Your task to perform on an android device: Go to accessibility settings Image 0: 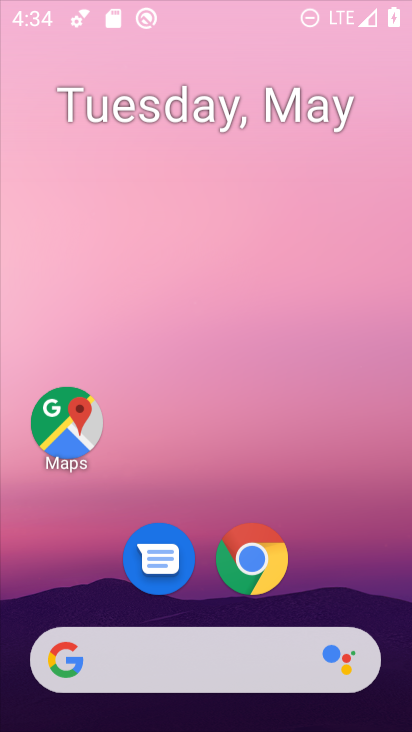
Step 0: click (234, 114)
Your task to perform on an android device: Go to accessibility settings Image 1: 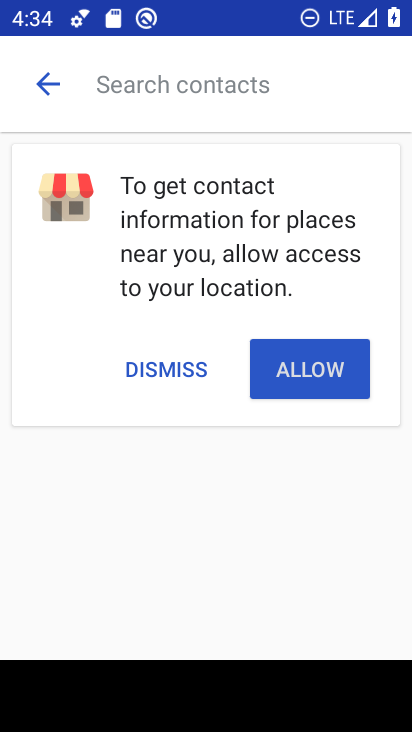
Step 1: press home button
Your task to perform on an android device: Go to accessibility settings Image 2: 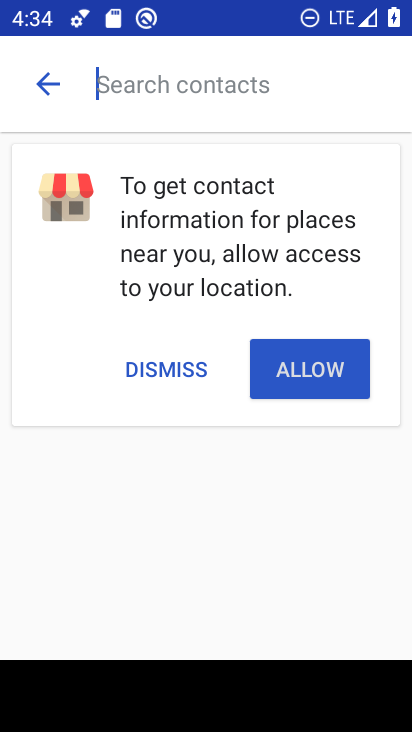
Step 2: press home button
Your task to perform on an android device: Go to accessibility settings Image 3: 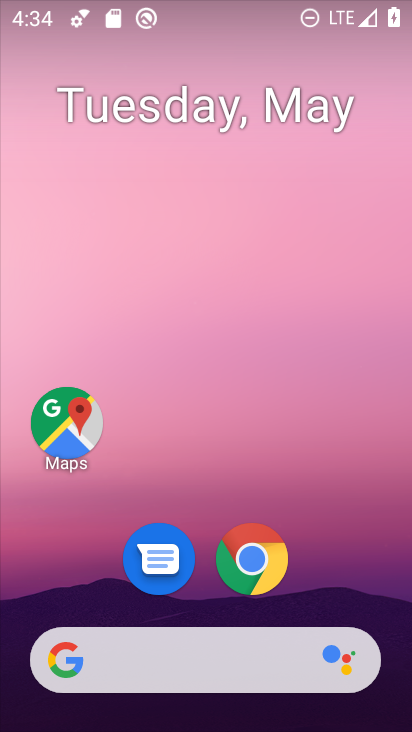
Step 3: drag from (221, 721) to (229, 87)
Your task to perform on an android device: Go to accessibility settings Image 4: 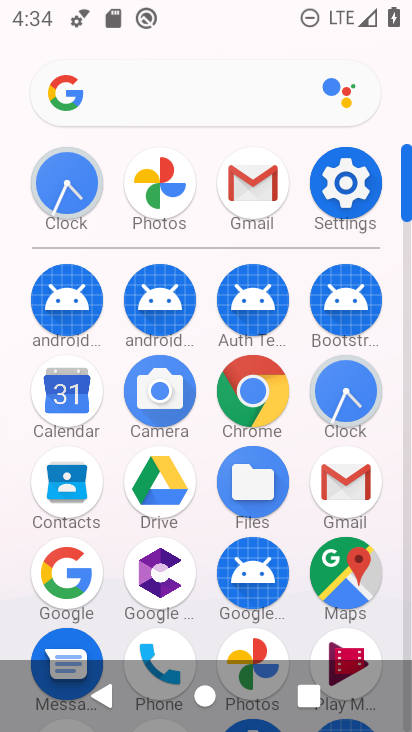
Step 4: click (337, 182)
Your task to perform on an android device: Go to accessibility settings Image 5: 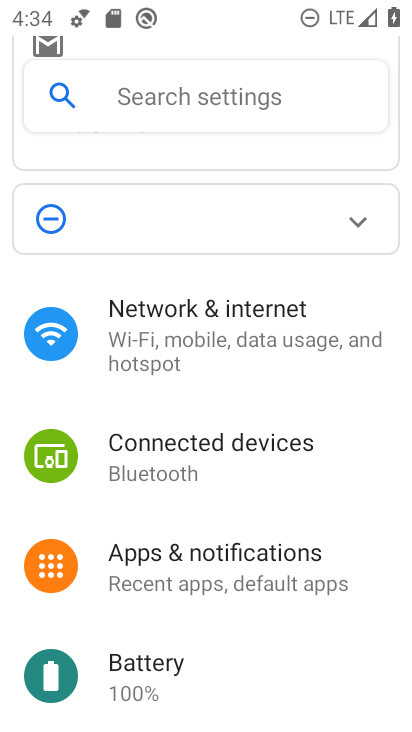
Step 5: drag from (216, 686) to (223, 320)
Your task to perform on an android device: Go to accessibility settings Image 6: 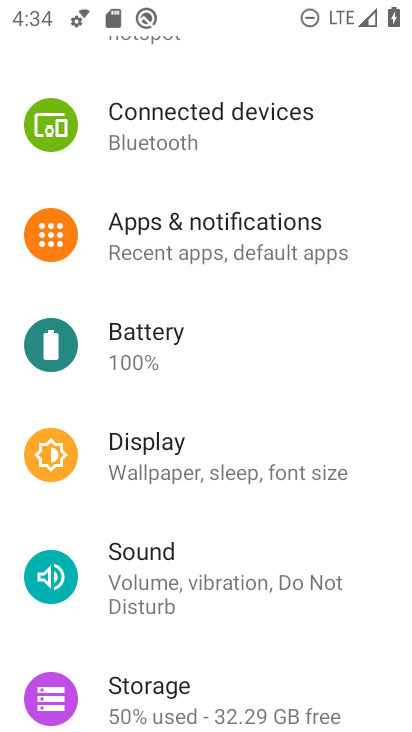
Step 6: drag from (265, 655) to (271, 239)
Your task to perform on an android device: Go to accessibility settings Image 7: 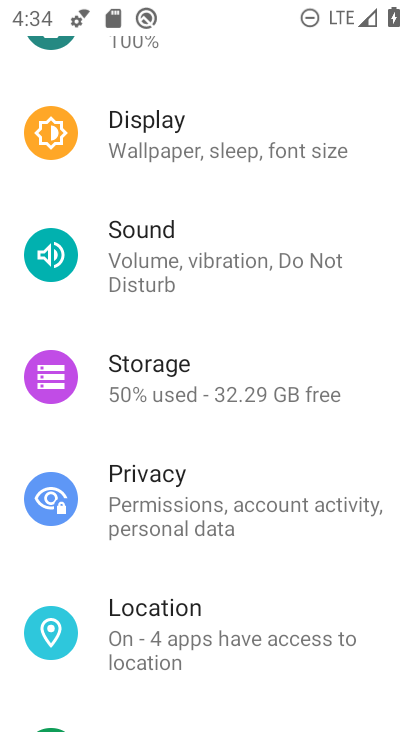
Step 7: drag from (234, 681) to (247, 236)
Your task to perform on an android device: Go to accessibility settings Image 8: 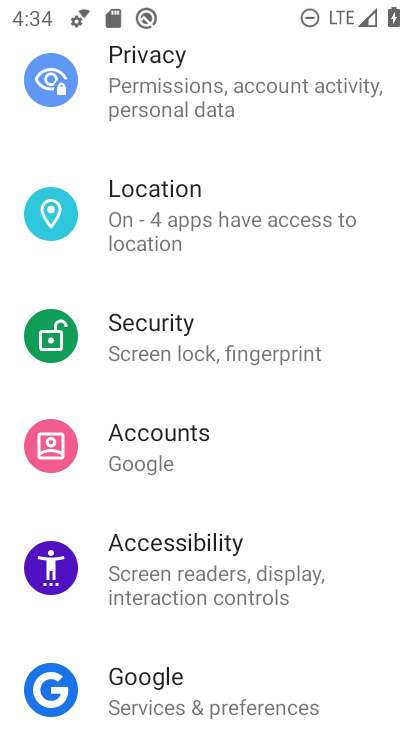
Step 8: click (206, 574)
Your task to perform on an android device: Go to accessibility settings Image 9: 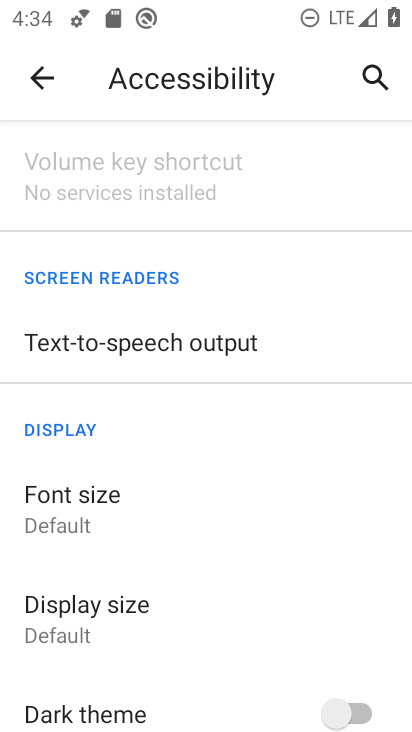
Step 9: task complete